Your task to perform on an android device: Open my contact list Image 0: 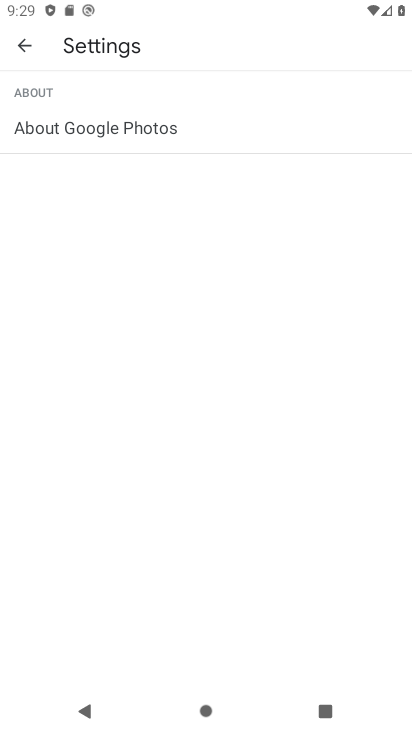
Step 0: press home button
Your task to perform on an android device: Open my contact list Image 1: 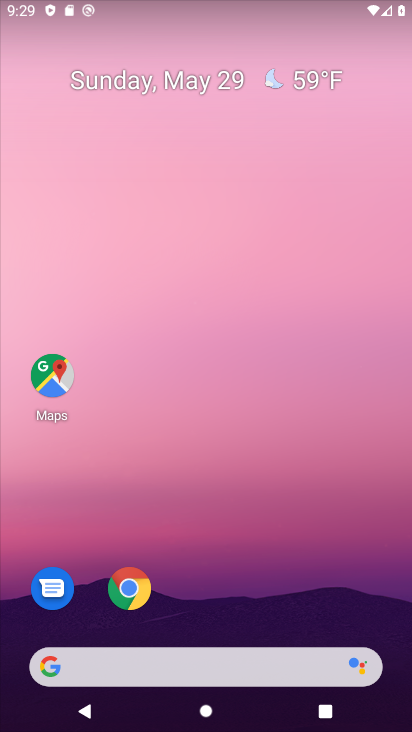
Step 1: drag from (219, 622) to (237, 53)
Your task to perform on an android device: Open my contact list Image 2: 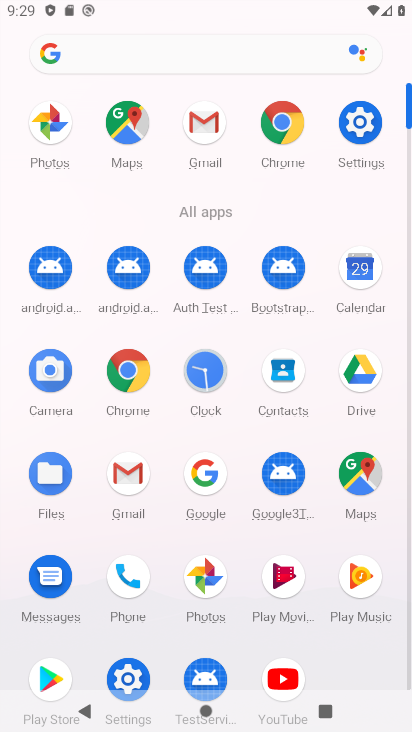
Step 2: click (362, 278)
Your task to perform on an android device: Open my contact list Image 3: 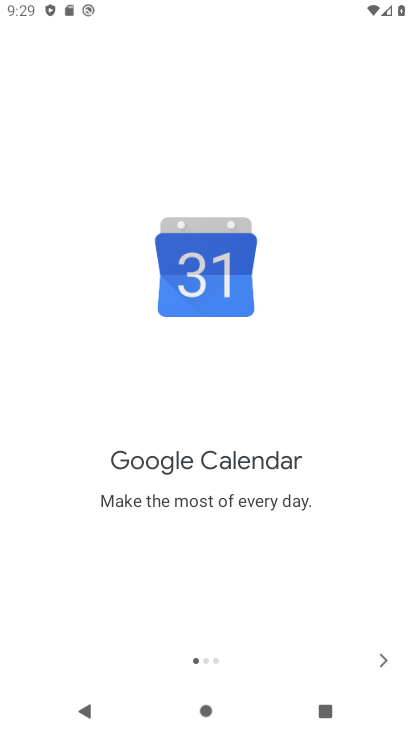
Step 3: press back button
Your task to perform on an android device: Open my contact list Image 4: 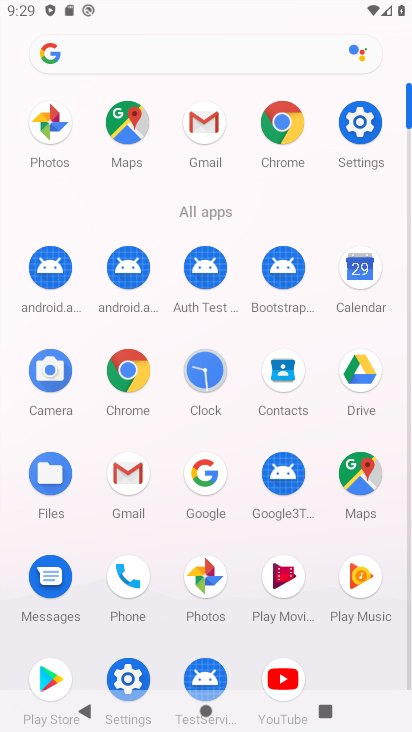
Step 4: click (286, 377)
Your task to perform on an android device: Open my contact list Image 5: 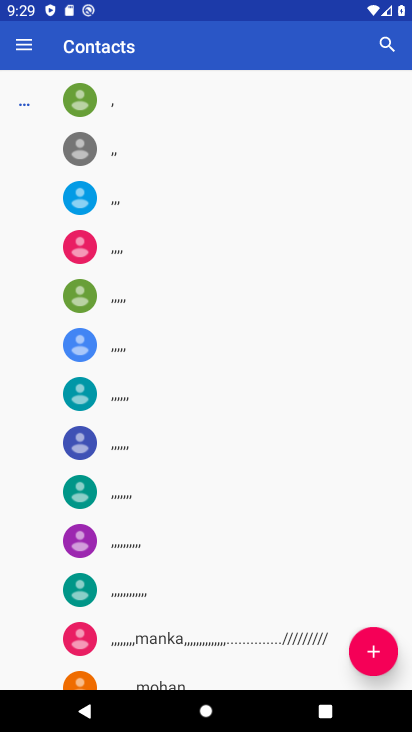
Step 5: task complete